Your task to perform on an android device: Go to sound settings Image 0: 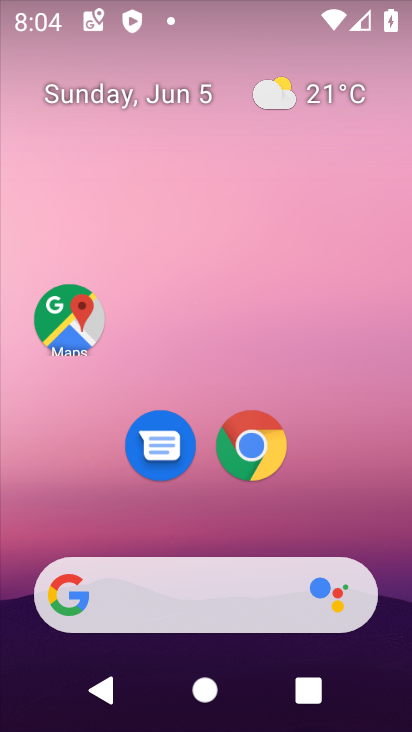
Step 0: drag from (357, 529) to (327, 131)
Your task to perform on an android device: Go to sound settings Image 1: 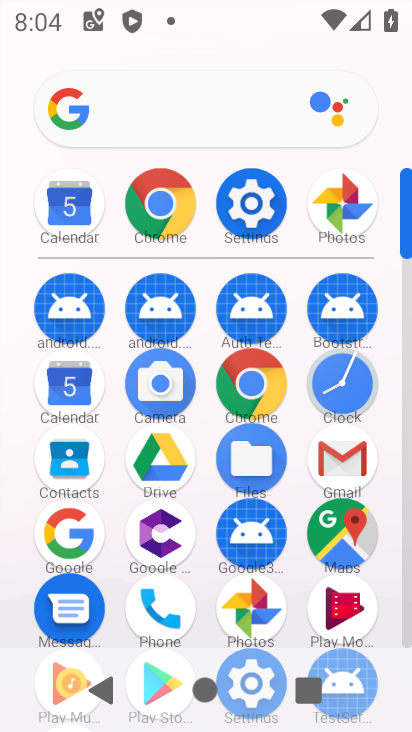
Step 1: click (255, 198)
Your task to perform on an android device: Go to sound settings Image 2: 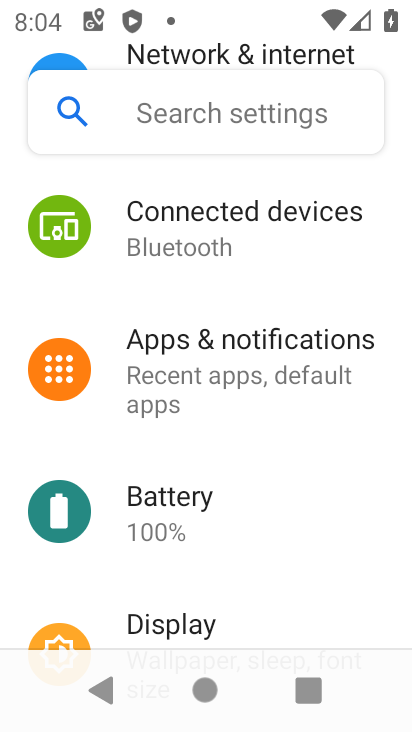
Step 2: drag from (34, 593) to (73, 237)
Your task to perform on an android device: Go to sound settings Image 3: 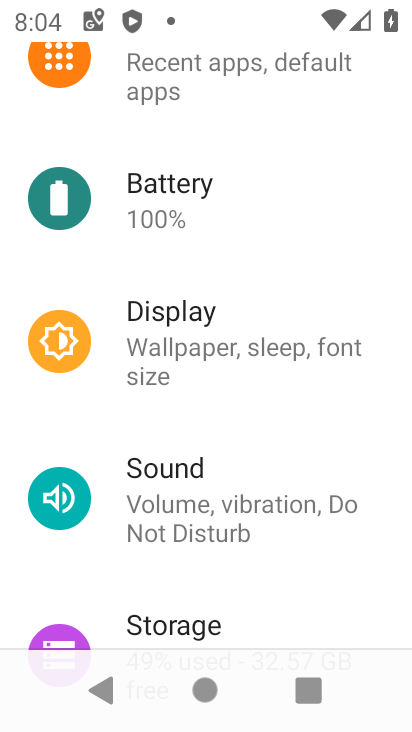
Step 3: click (225, 475)
Your task to perform on an android device: Go to sound settings Image 4: 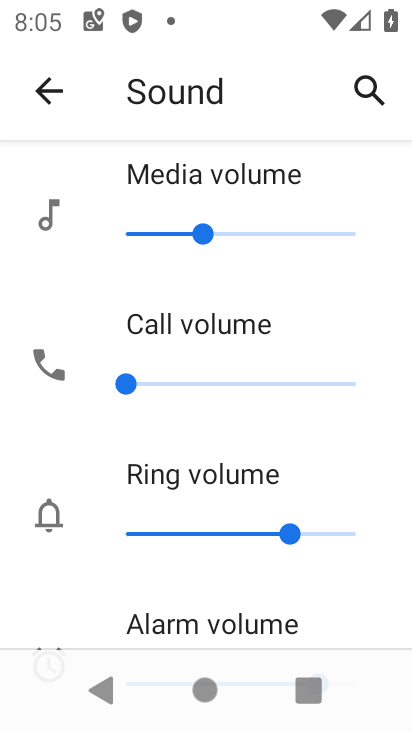
Step 4: task complete